Your task to perform on an android device: empty trash in the gmail app Image 0: 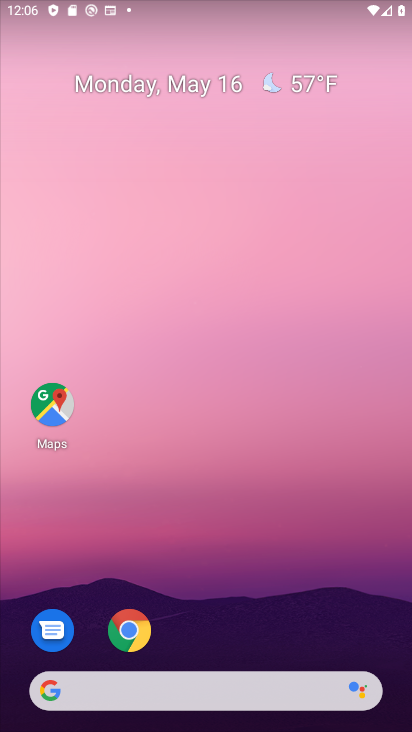
Step 0: drag from (391, 4) to (118, 28)
Your task to perform on an android device: empty trash in the gmail app Image 1: 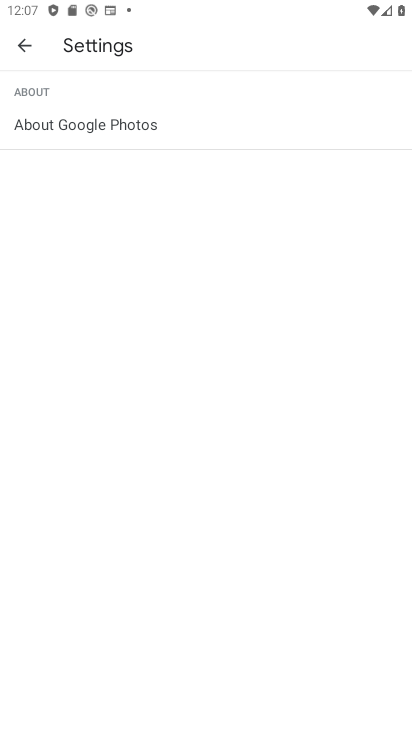
Step 1: press home button
Your task to perform on an android device: empty trash in the gmail app Image 2: 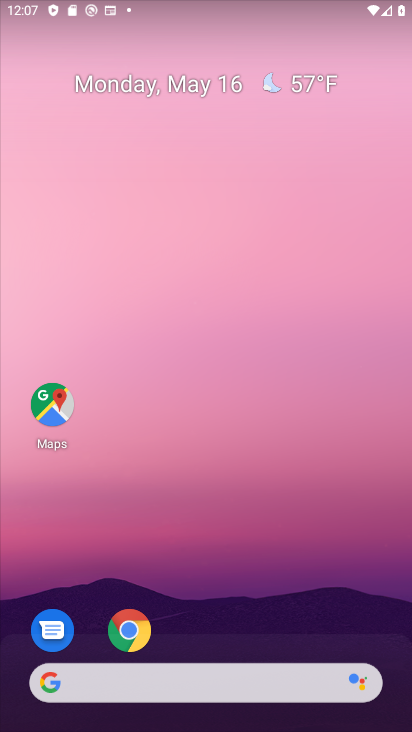
Step 2: drag from (252, 552) to (400, 84)
Your task to perform on an android device: empty trash in the gmail app Image 3: 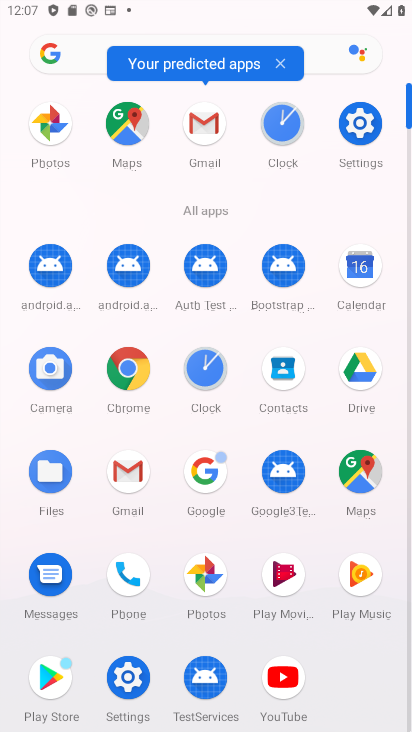
Step 3: click (216, 120)
Your task to perform on an android device: empty trash in the gmail app Image 4: 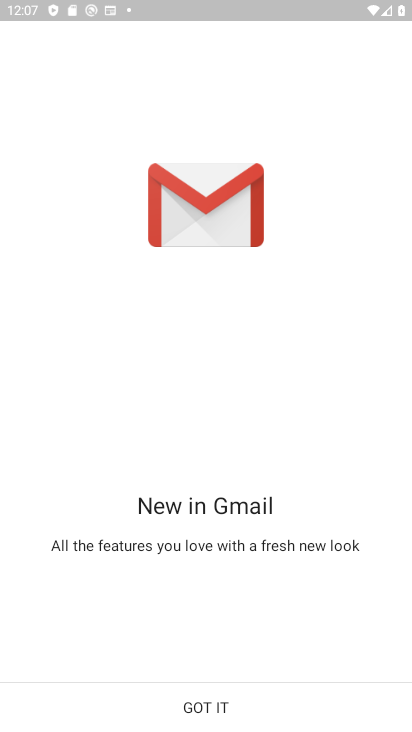
Step 4: click (207, 697)
Your task to perform on an android device: empty trash in the gmail app Image 5: 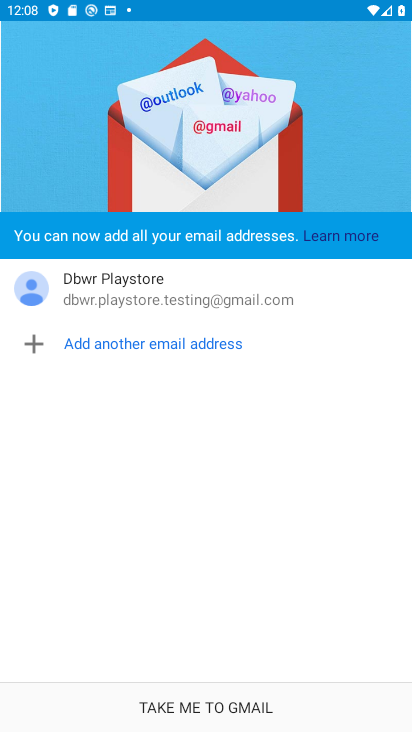
Step 5: click (207, 696)
Your task to perform on an android device: empty trash in the gmail app Image 6: 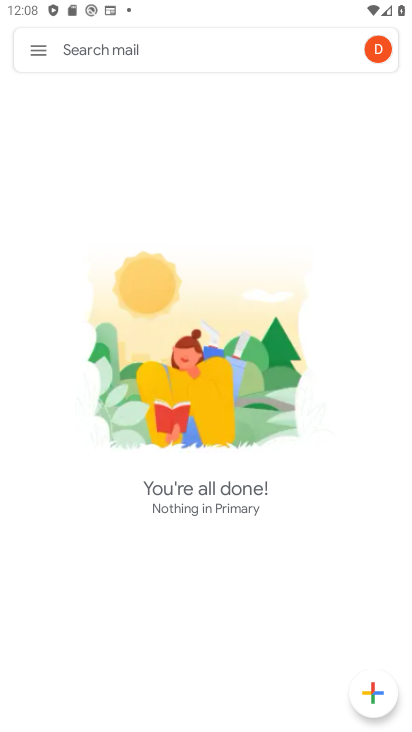
Step 6: click (50, 51)
Your task to perform on an android device: empty trash in the gmail app Image 7: 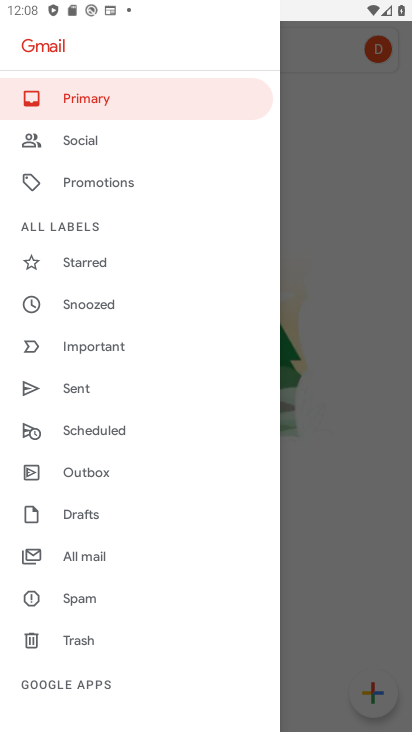
Step 7: click (63, 647)
Your task to perform on an android device: empty trash in the gmail app Image 8: 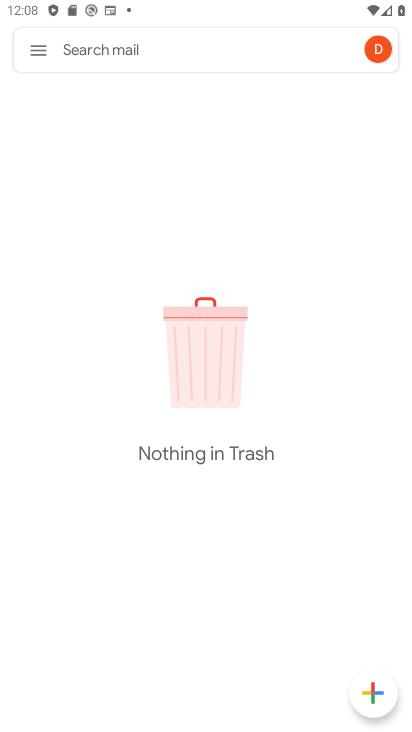
Step 8: task complete